Your task to perform on an android device: toggle airplane mode Image 0: 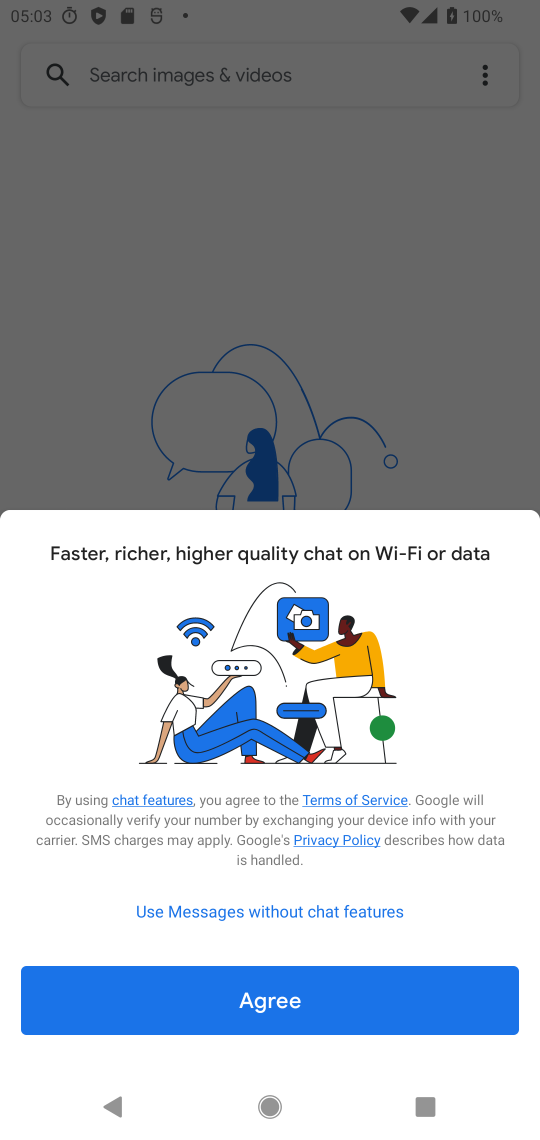
Step 0: press home button
Your task to perform on an android device: toggle airplane mode Image 1: 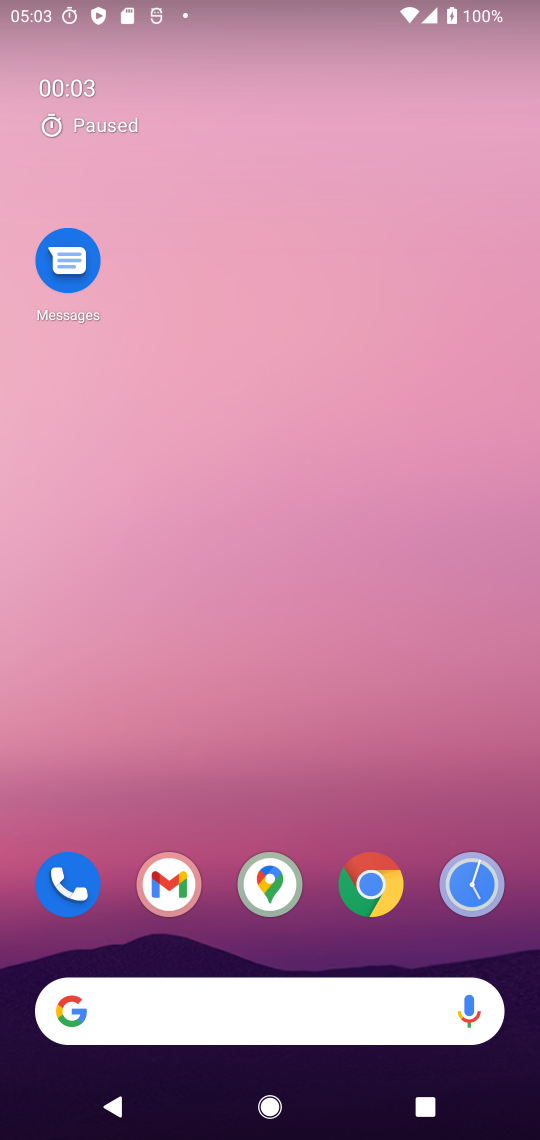
Step 1: drag from (83, 1083) to (392, 428)
Your task to perform on an android device: toggle airplane mode Image 2: 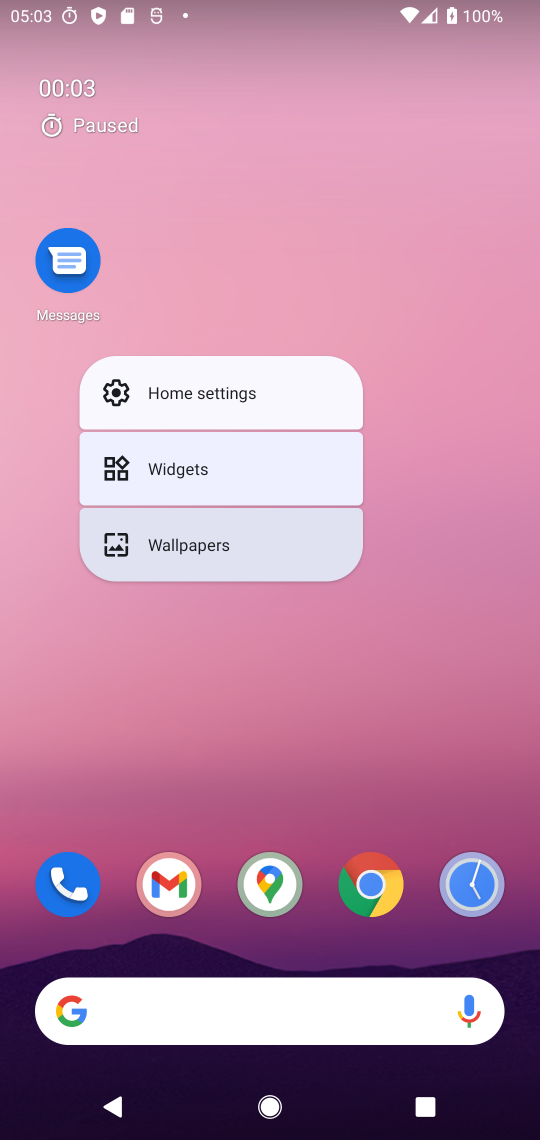
Step 2: drag from (163, 869) to (211, 16)
Your task to perform on an android device: toggle airplane mode Image 3: 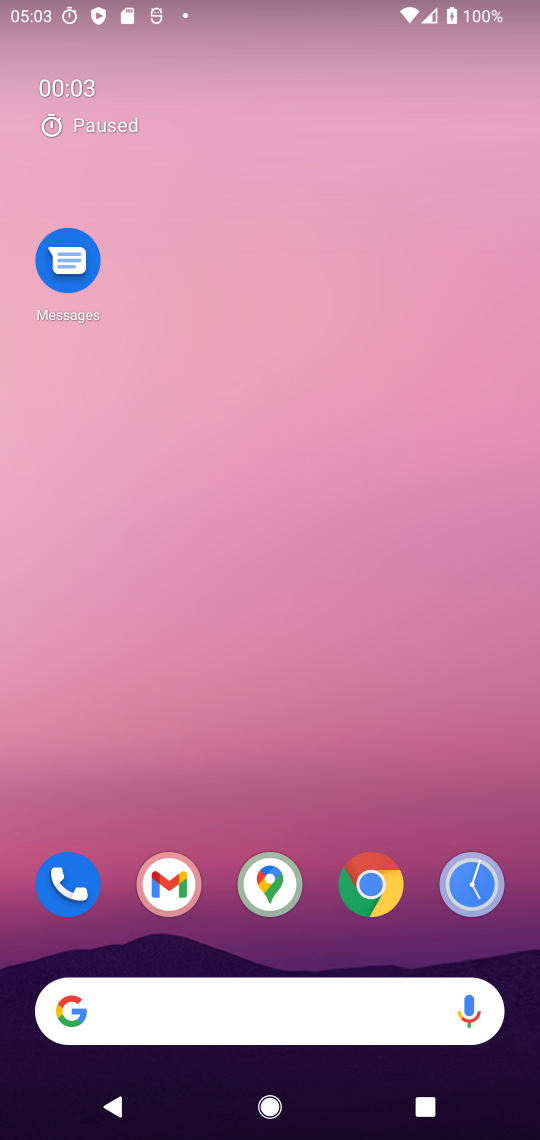
Step 3: drag from (80, 1071) to (258, 435)
Your task to perform on an android device: toggle airplane mode Image 4: 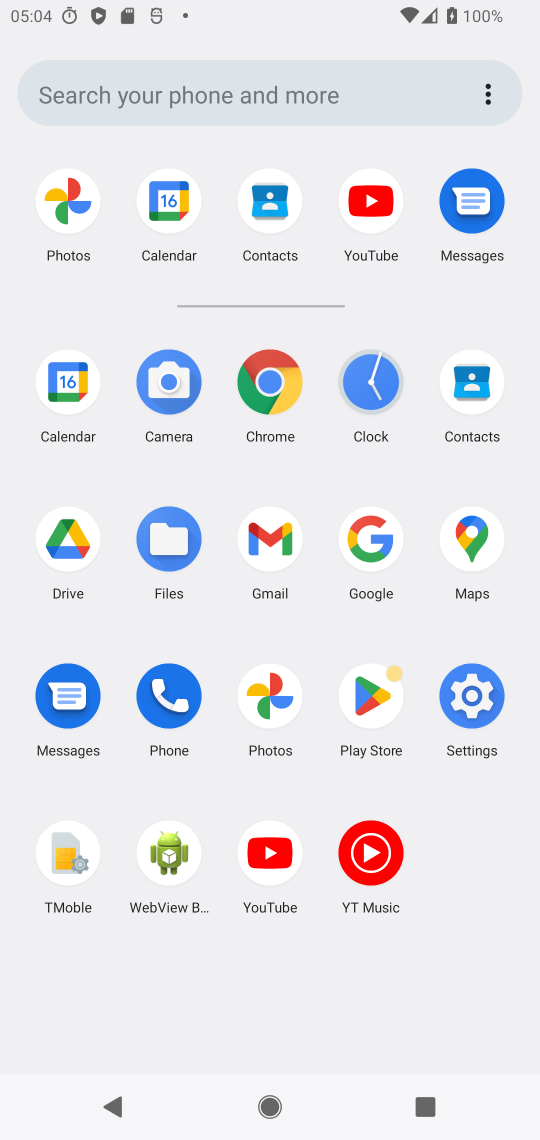
Step 4: click (490, 703)
Your task to perform on an android device: toggle airplane mode Image 5: 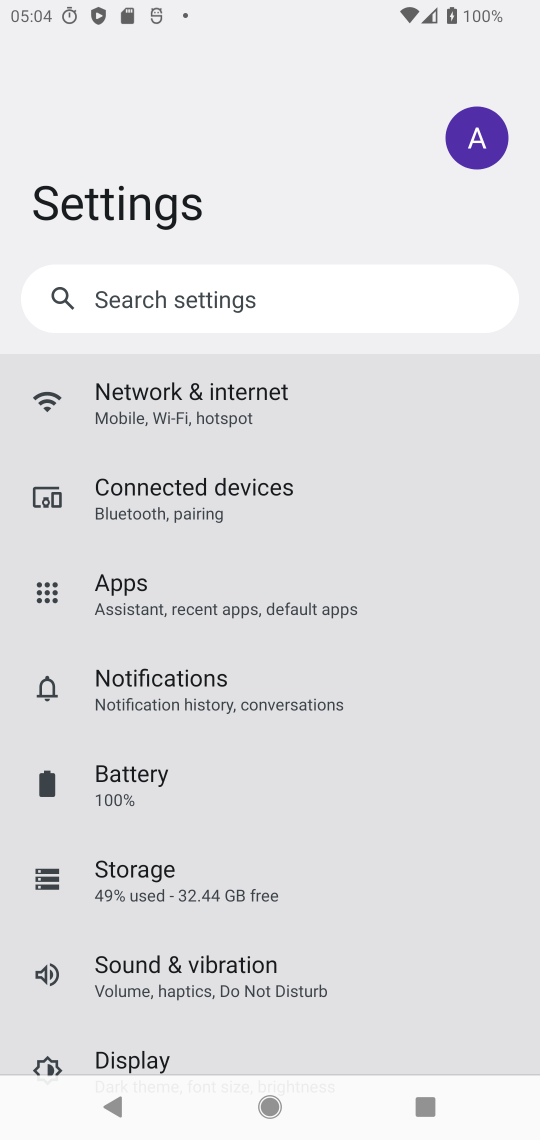
Step 5: click (194, 385)
Your task to perform on an android device: toggle airplane mode Image 6: 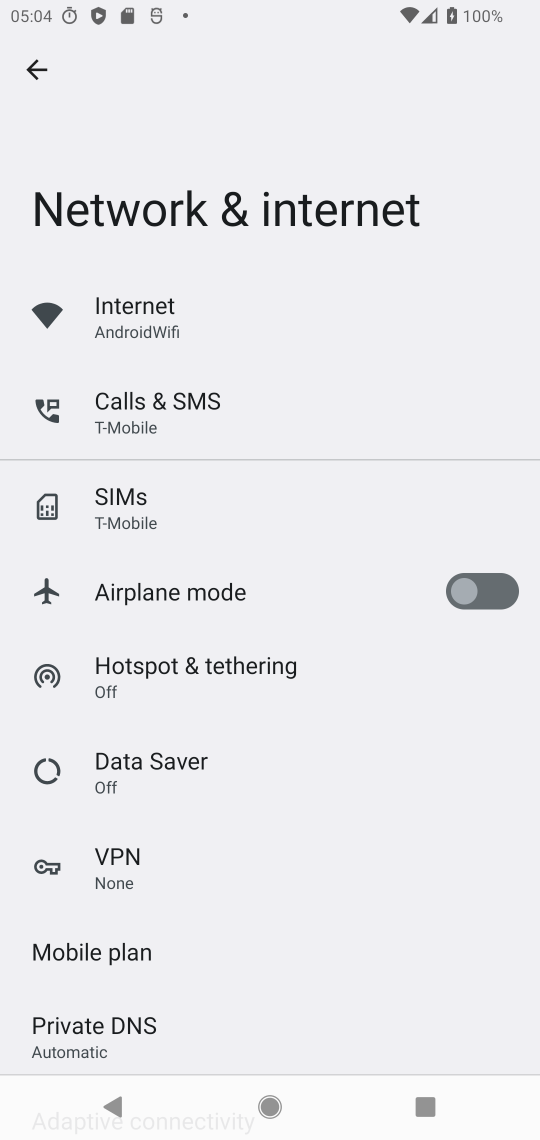
Step 6: click (485, 600)
Your task to perform on an android device: toggle airplane mode Image 7: 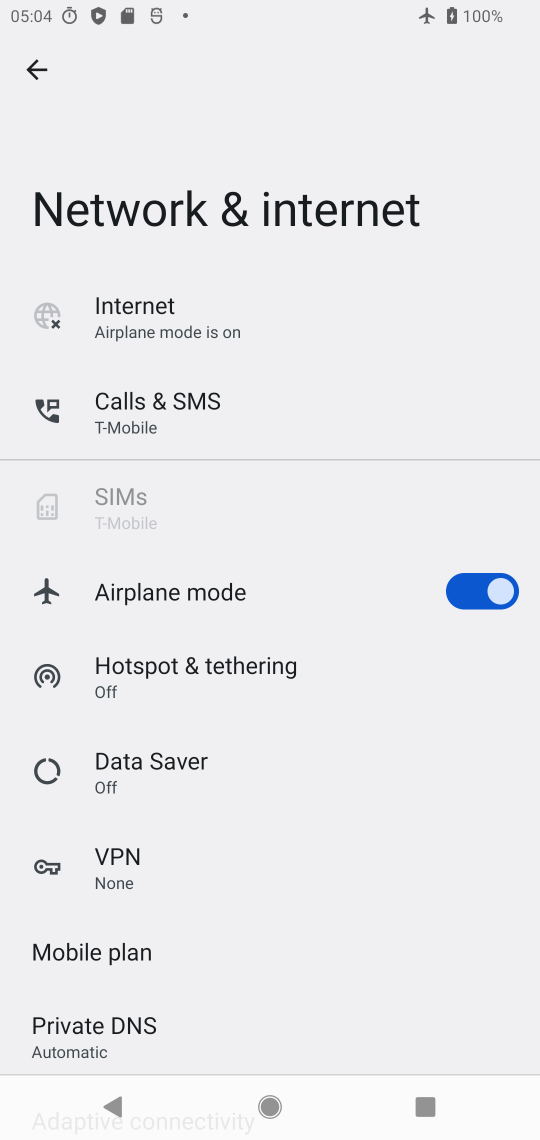
Step 7: task complete